Your task to perform on an android device: Open calendar and show me the second week of next month Image 0: 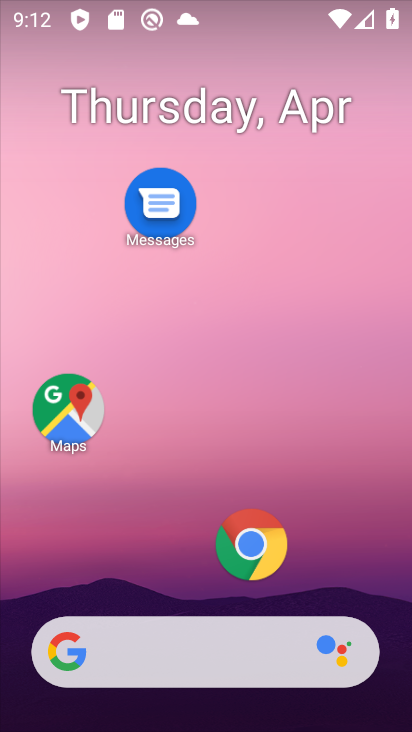
Step 0: drag from (148, 616) to (209, 160)
Your task to perform on an android device: Open calendar and show me the second week of next month Image 1: 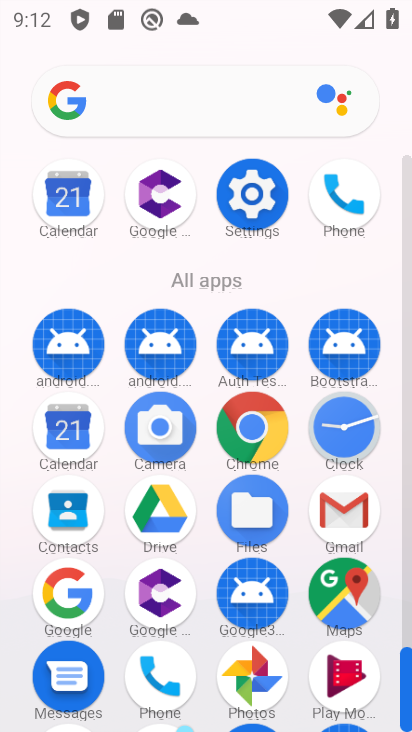
Step 1: click (56, 207)
Your task to perform on an android device: Open calendar and show me the second week of next month Image 2: 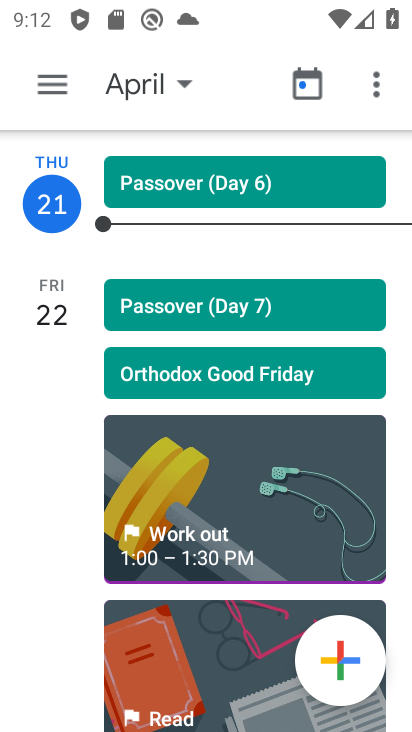
Step 2: click (156, 89)
Your task to perform on an android device: Open calendar and show me the second week of next month Image 3: 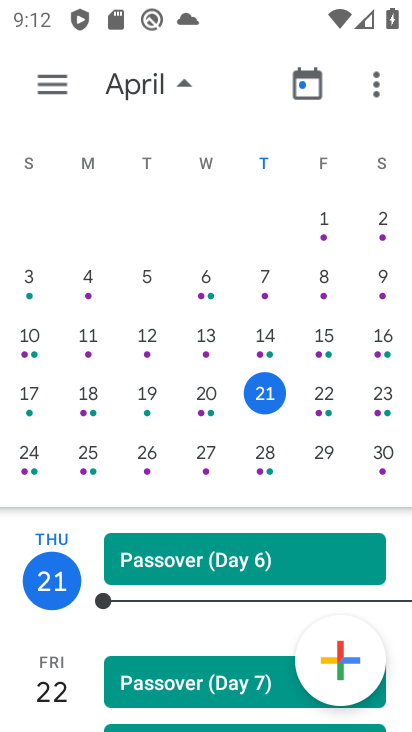
Step 3: drag from (393, 423) to (27, 454)
Your task to perform on an android device: Open calendar and show me the second week of next month Image 4: 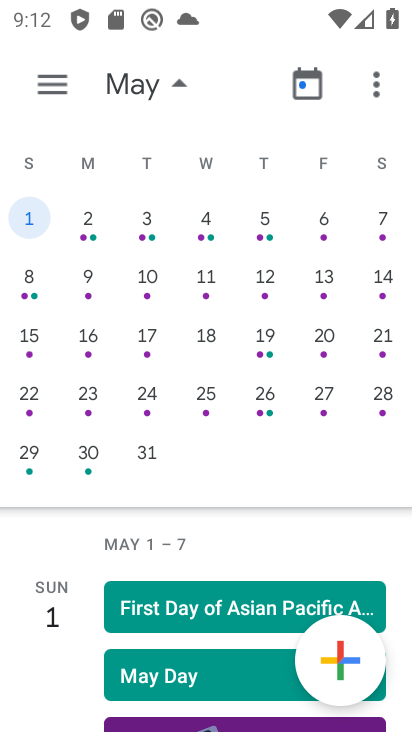
Step 4: click (27, 278)
Your task to perform on an android device: Open calendar and show me the second week of next month Image 5: 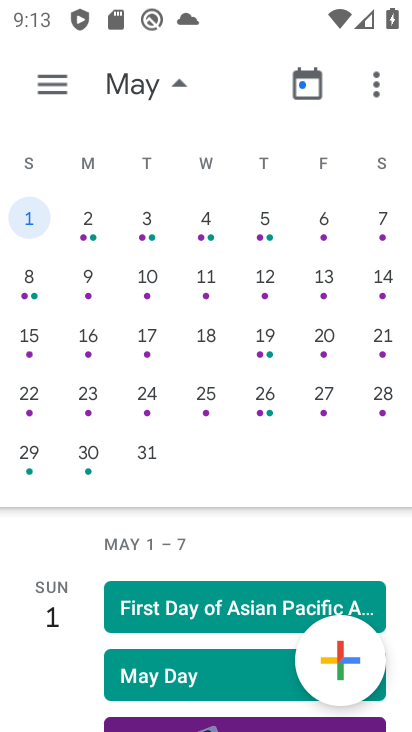
Step 5: click (33, 283)
Your task to perform on an android device: Open calendar and show me the second week of next month Image 6: 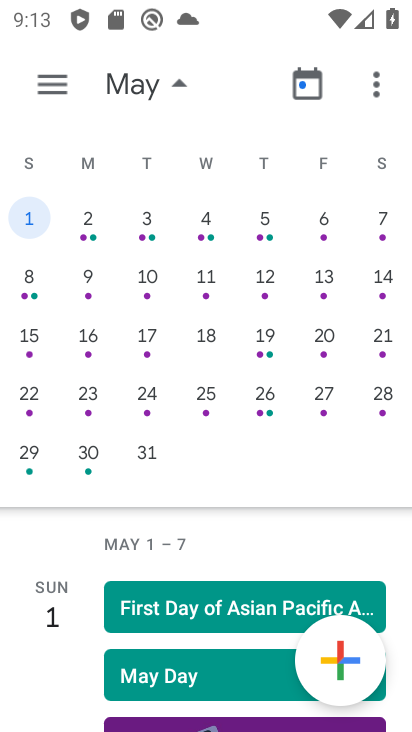
Step 6: click (25, 279)
Your task to perform on an android device: Open calendar and show me the second week of next month Image 7: 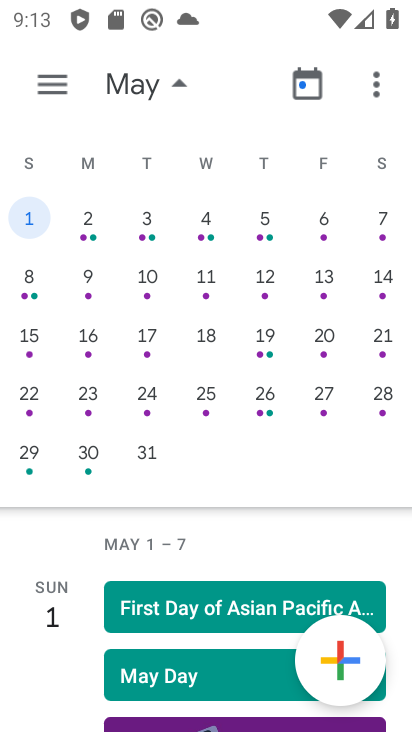
Step 7: click (29, 283)
Your task to perform on an android device: Open calendar and show me the second week of next month Image 8: 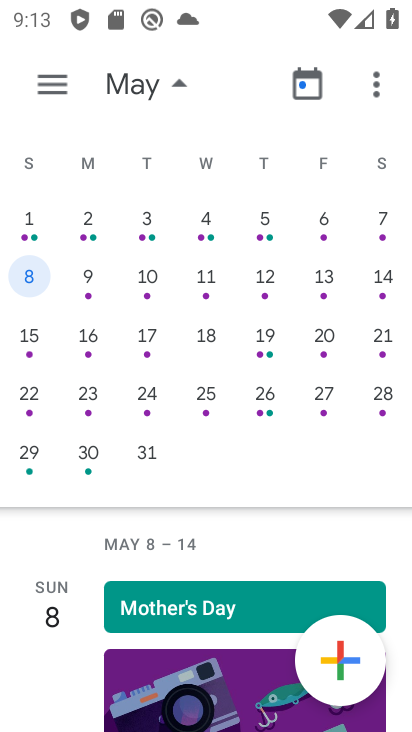
Step 8: task complete